Your task to perform on an android device: add a contact in the contacts app Image 0: 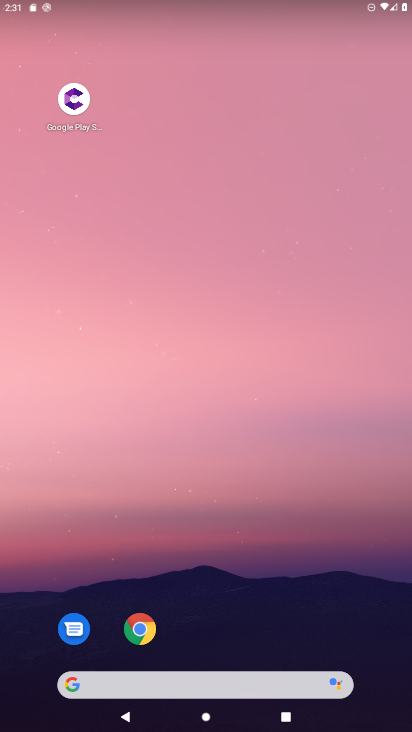
Step 0: drag from (332, 546) to (339, 151)
Your task to perform on an android device: add a contact in the contacts app Image 1: 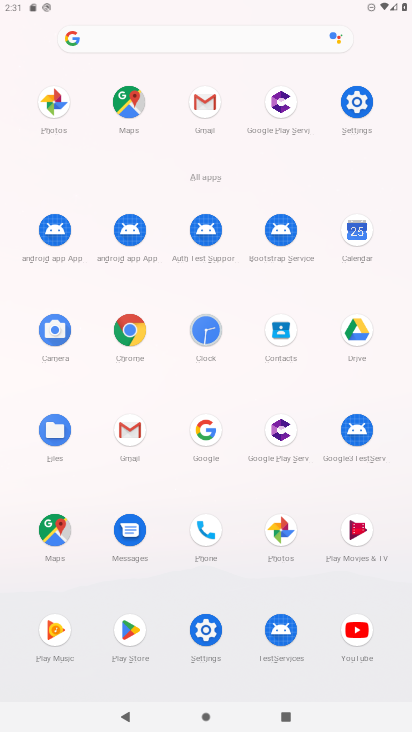
Step 1: click (270, 328)
Your task to perform on an android device: add a contact in the contacts app Image 2: 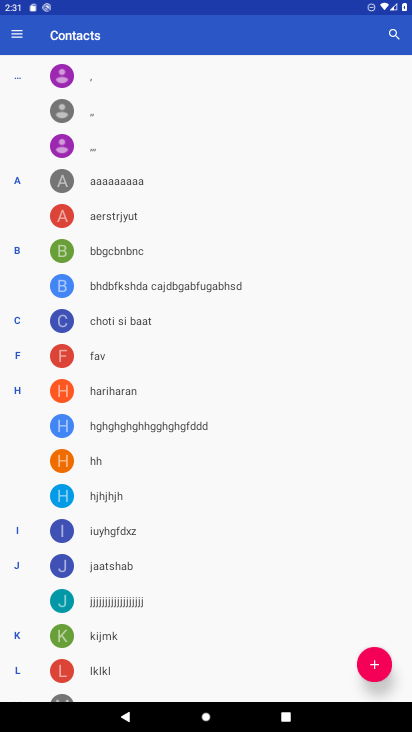
Step 2: click (367, 660)
Your task to perform on an android device: add a contact in the contacts app Image 3: 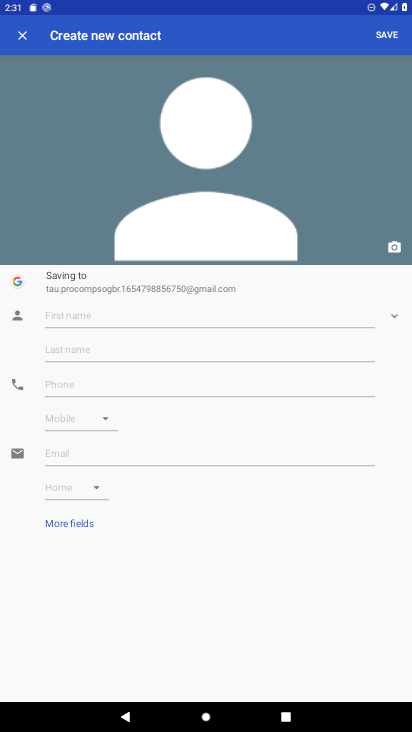
Step 3: click (134, 317)
Your task to perform on an android device: add a contact in the contacts app Image 4: 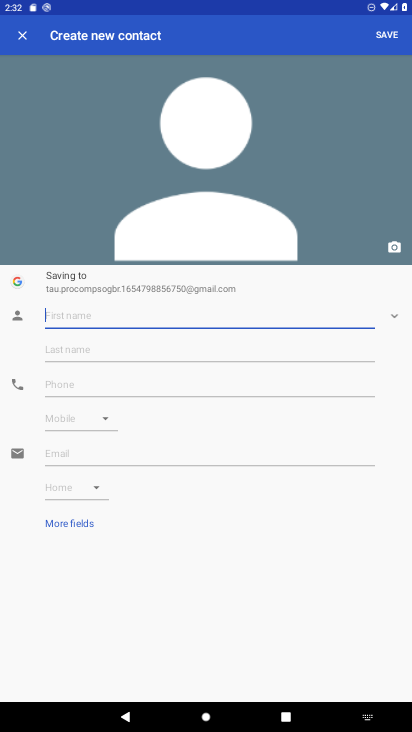
Step 4: type "nnnkk"
Your task to perform on an android device: add a contact in the contacts app Image 5: 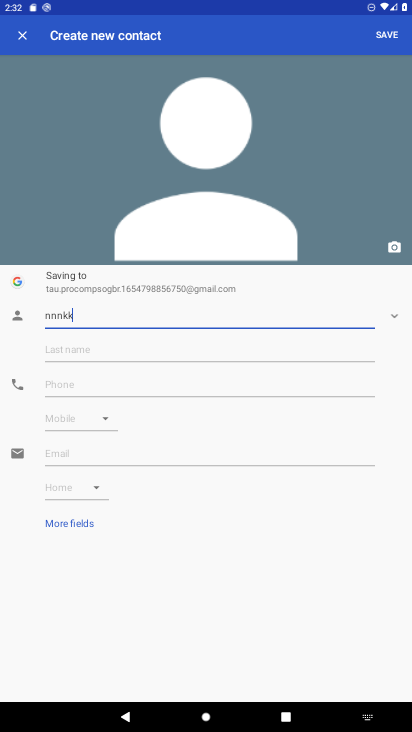
Step 5: click (64, 376)
Your task to perform on an android device: add a contact in the contacts app Image 6: 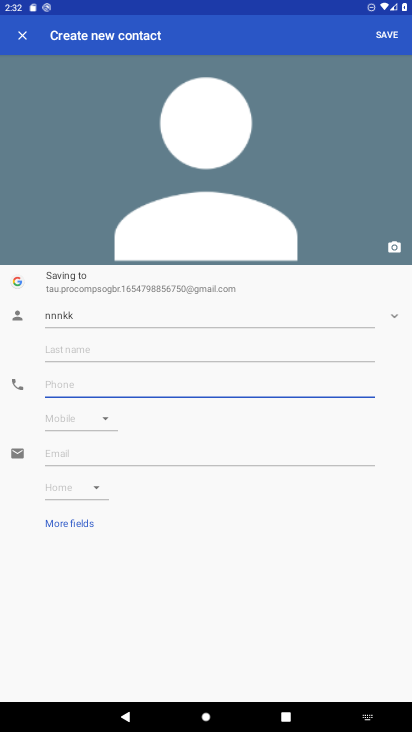
Step 6: type "0066"
Your task to perform on an android device: add a contact in the contacts app Image 7: 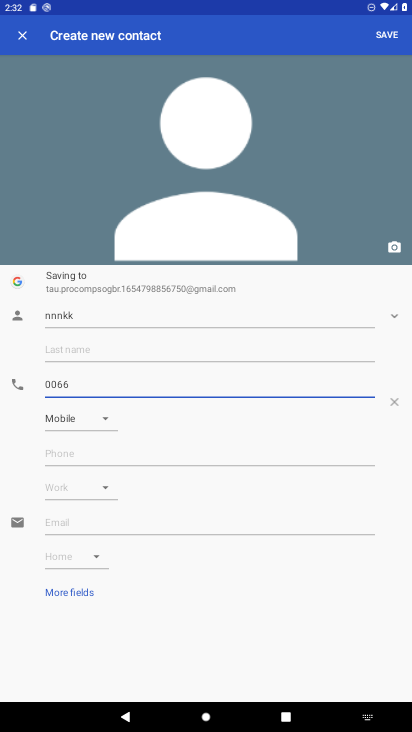
Step 7: click (372, 33)
Your task to perform on an android device: add a contact in the contacts app Image 8: 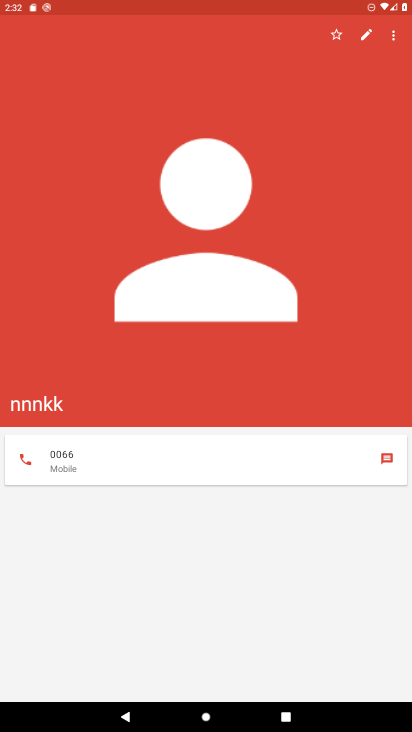
Step 8: task complete